Your task to perform on an android device: move an email to a new category in the gmail app Image 0: 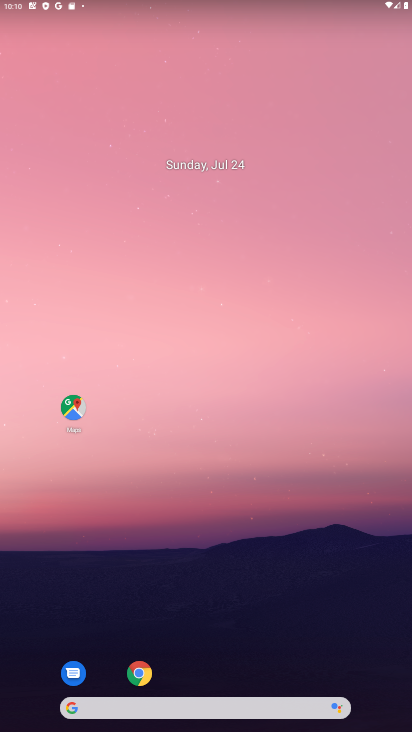
Step 0: click (271, 49)
Your task to perform on an android device: move an email to a new category in the gmail app Image 1: 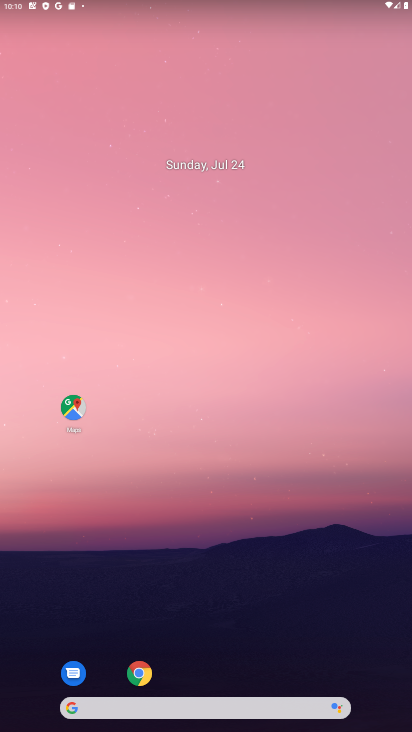
Step 1: drag from (272, 8) to (271, 43)
Your task to perform on an android device: move an email to a new category in the gmail app Image 2: 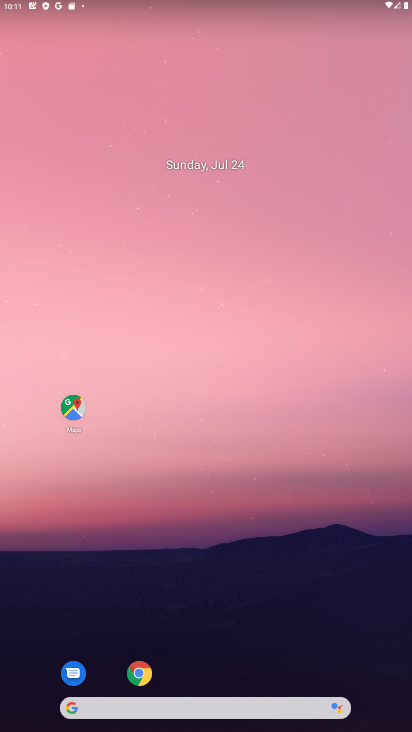
Step 2: drag from (27, 680) to (205, 99)
Your task to perform on an android device: move an email to a new category in the gmail app Image 3: 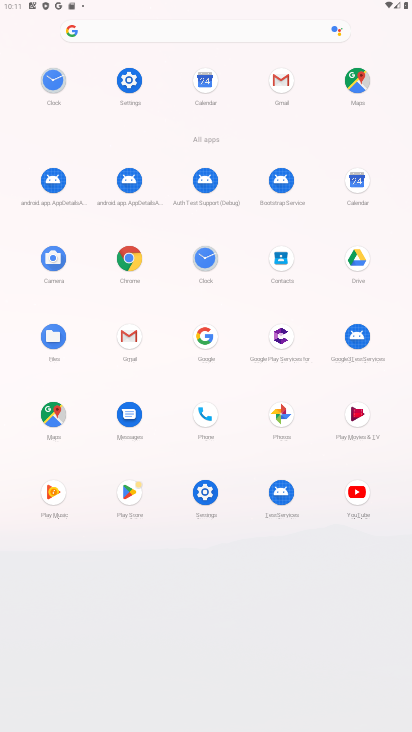
Step 3: click (124, 348)
Your task to perform on an android device: move an email to a new category in the gmail app Image 4: 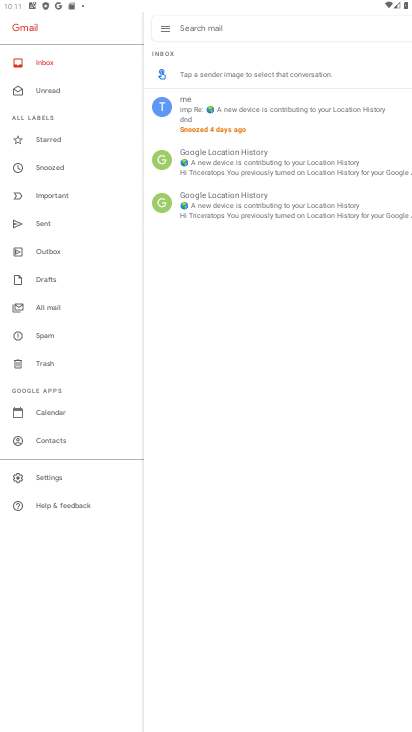
Step 4: task complete